Your task to perform on an android device: Is it going to rain tomorrow? Image 0: 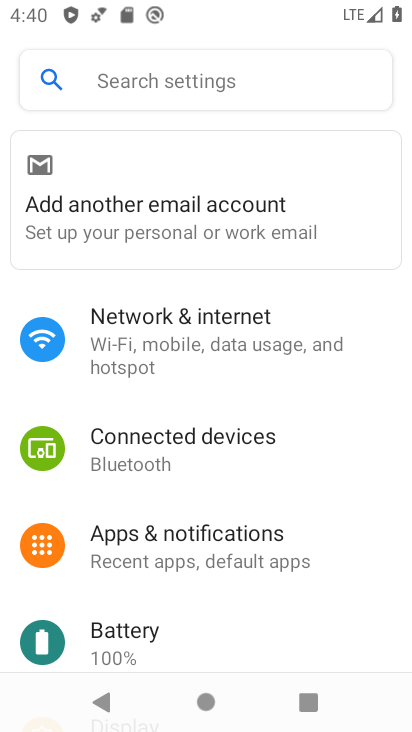
Step 0: press home button
Your task to perform on an android device: Is it going to rain tomorrow? Image 1: 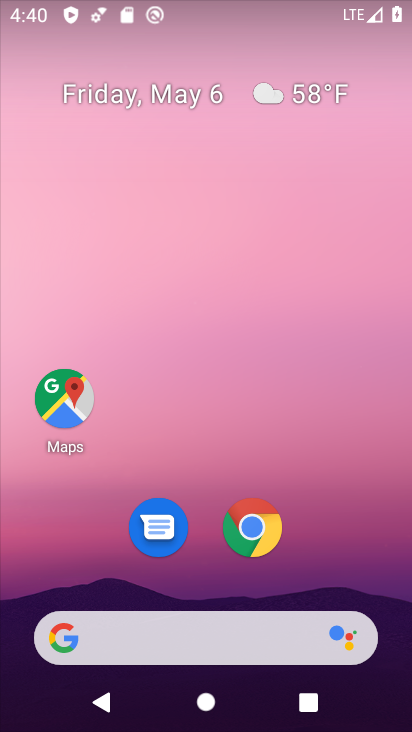
Step 1: click (263, 93)
Your task to perform on an android device: Is it going to rain tomorrow? Image 2: 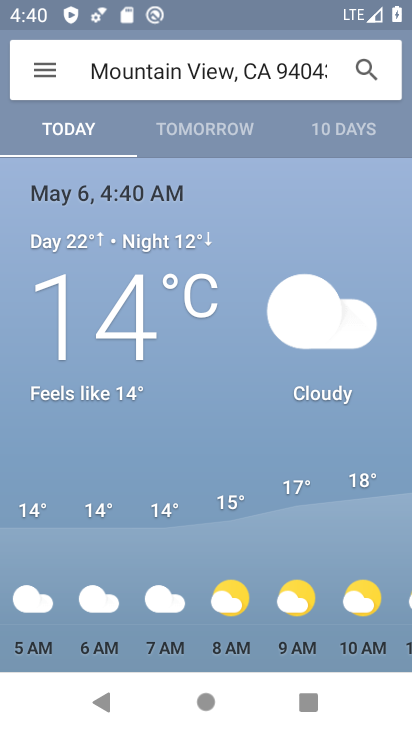
Step 2: click (202, 136)
Your task to perform on an android device: Is it going to rain tomorrow? Image 3: 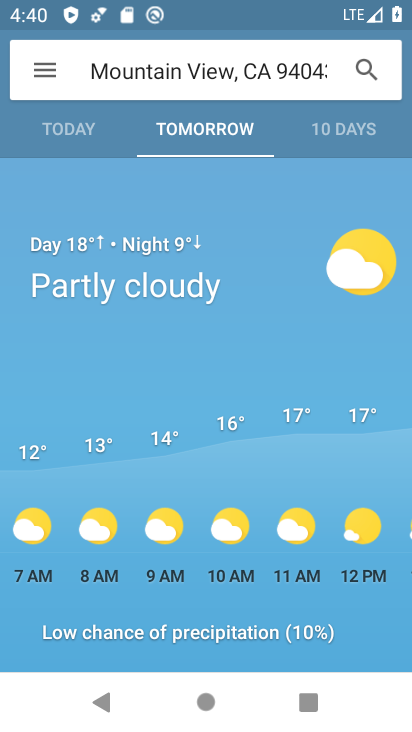
Step 3: task complete